Your task to perform on an android device: open app "Microsoft Excel" (install if not already installed) and go to login screen Image 0: 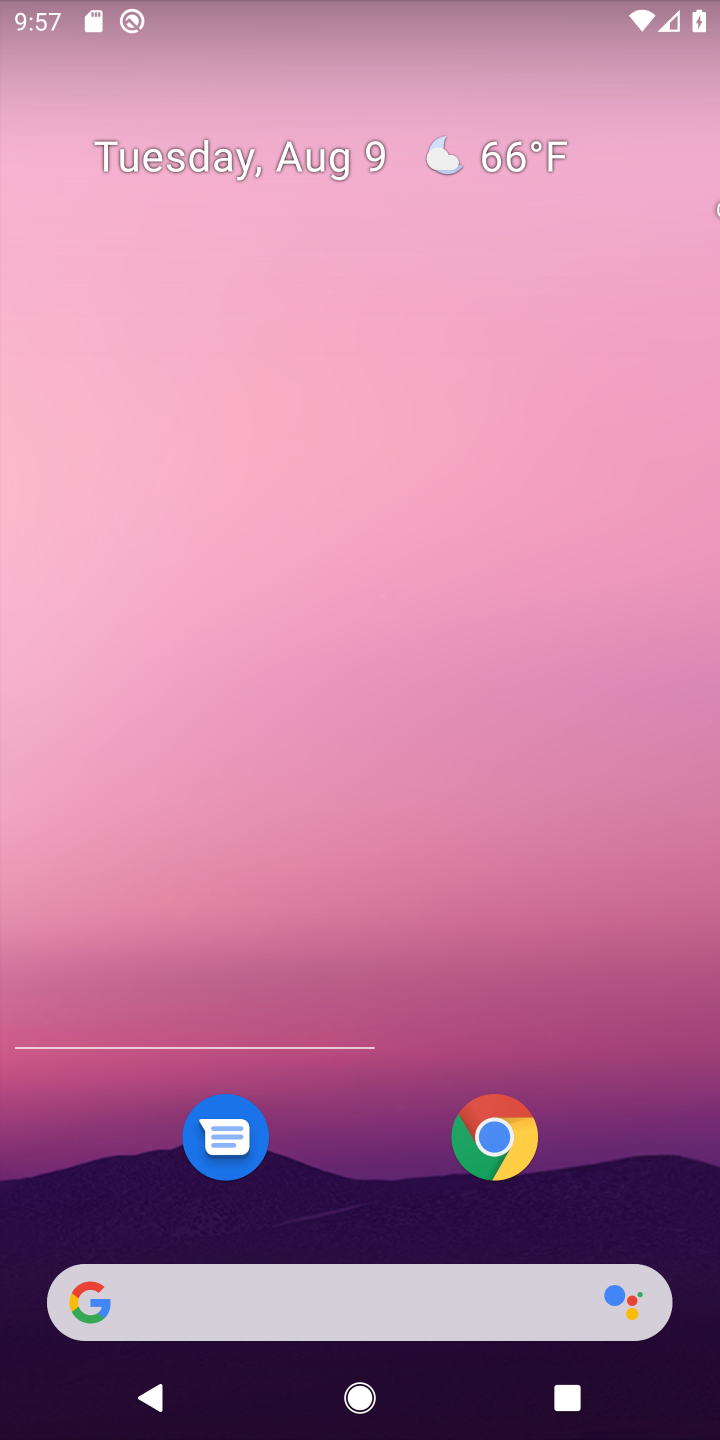
Step 0: press home button
Your task to perform on an android device: open app "Microsoft Excel" (install if not already installed) and go to login screen Image 1: 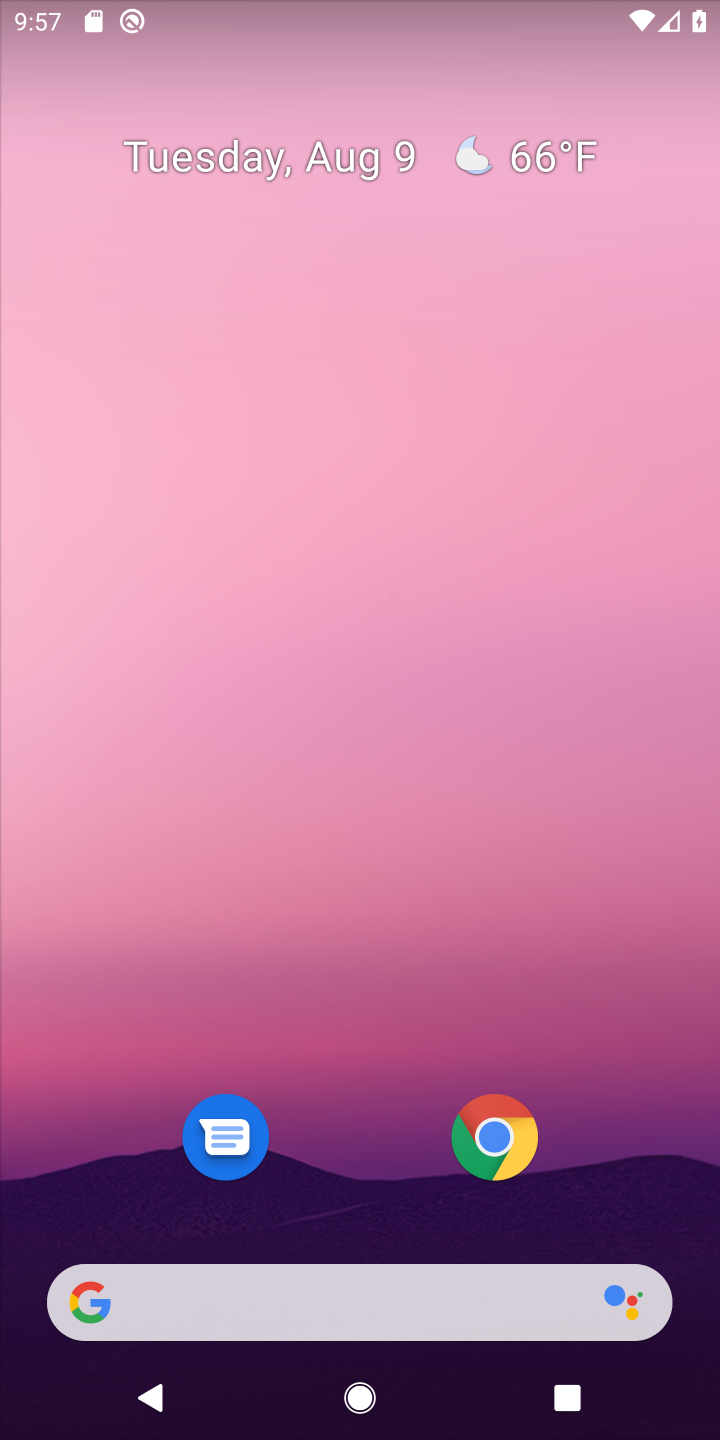
Step 1: drag from (336, 1140) to (371, 356)
Your task to perform on an android device: open app "Microsoft Excel" (install if not already installed) and go to login screen Image 2: 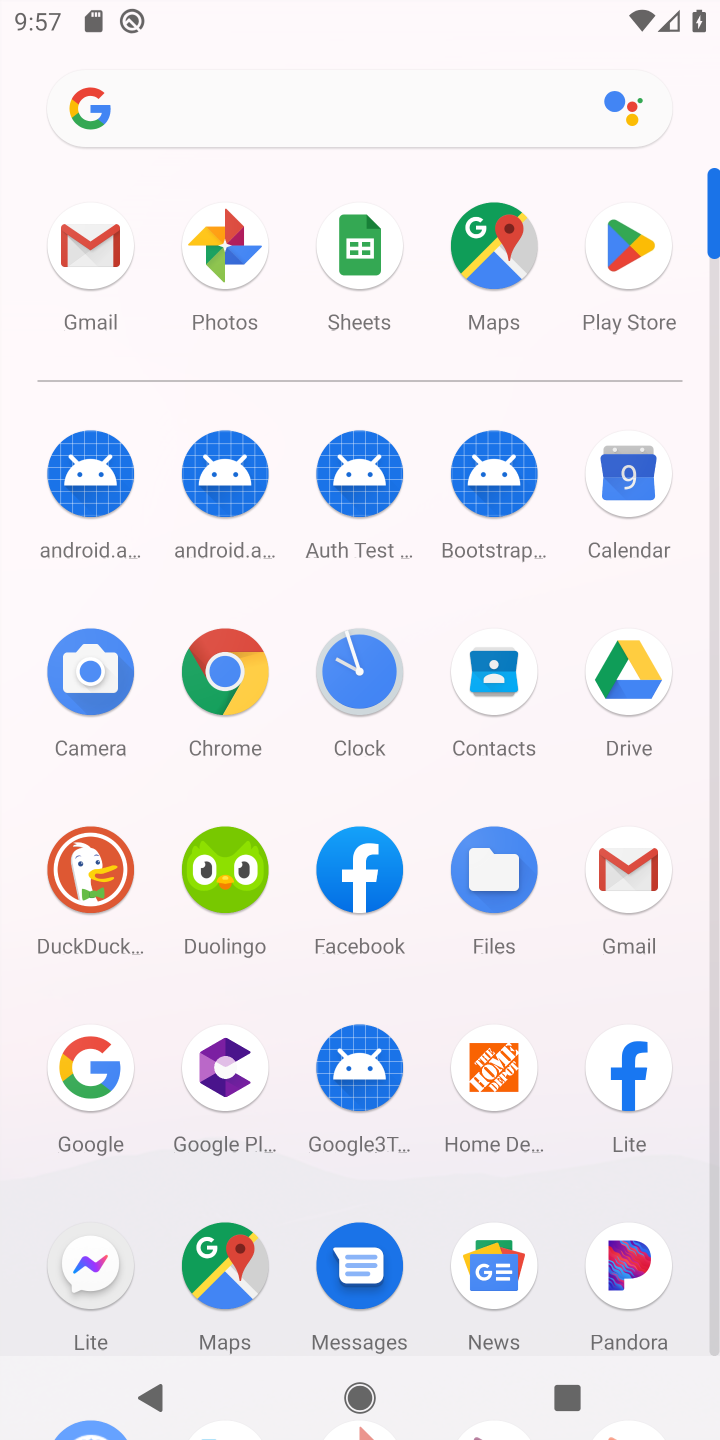
Step 2: click (636, 264)
Your task to perform on an android device: open app "Microsoft Excel" (install if not already installed) and go to login screen Image 3: 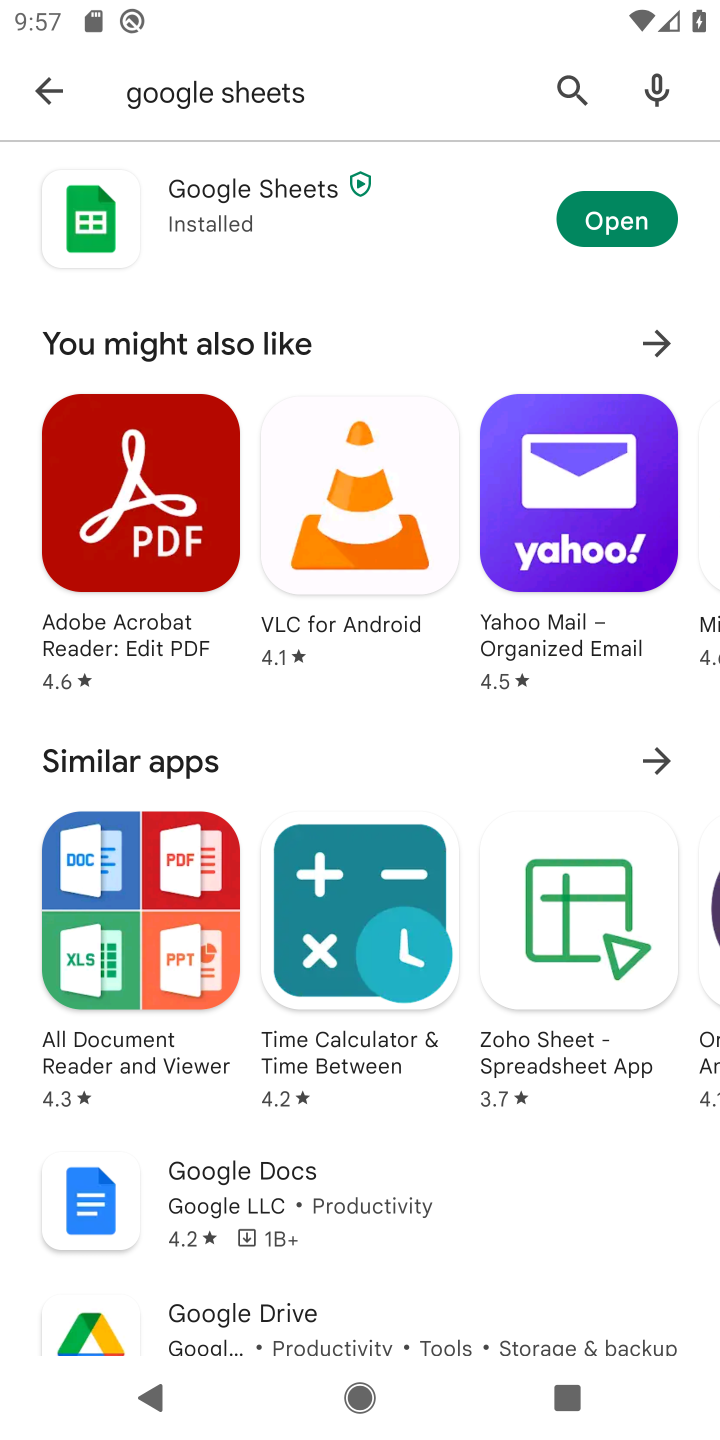
Step 3: click (578, 65)
Your task to perform on an android device: open app "Microsoft Excel" (install if not already installed) and go to login screen Image 4: 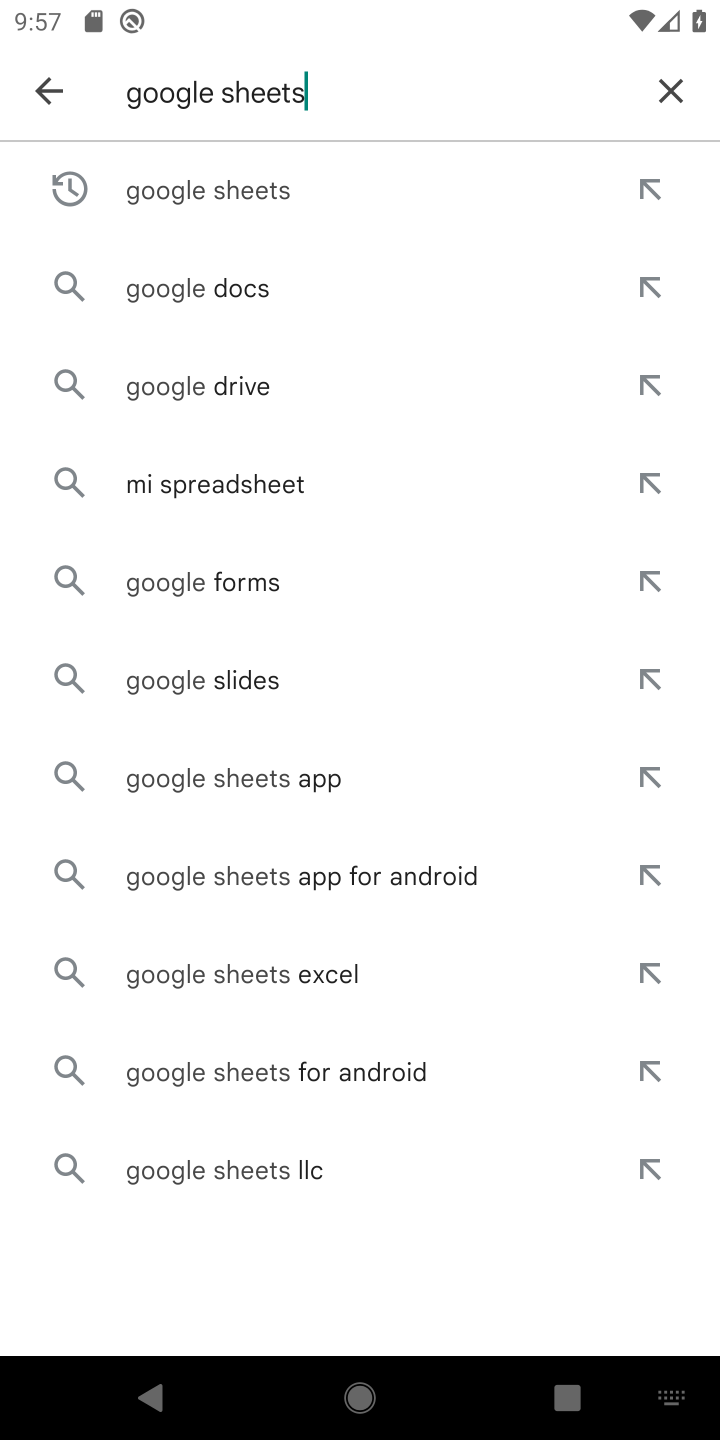
Step 4: click (668, 101)
Your task to perform on an android device: open app "Microsoft Excel" (install if not already installed) and go to login screen Image 5: 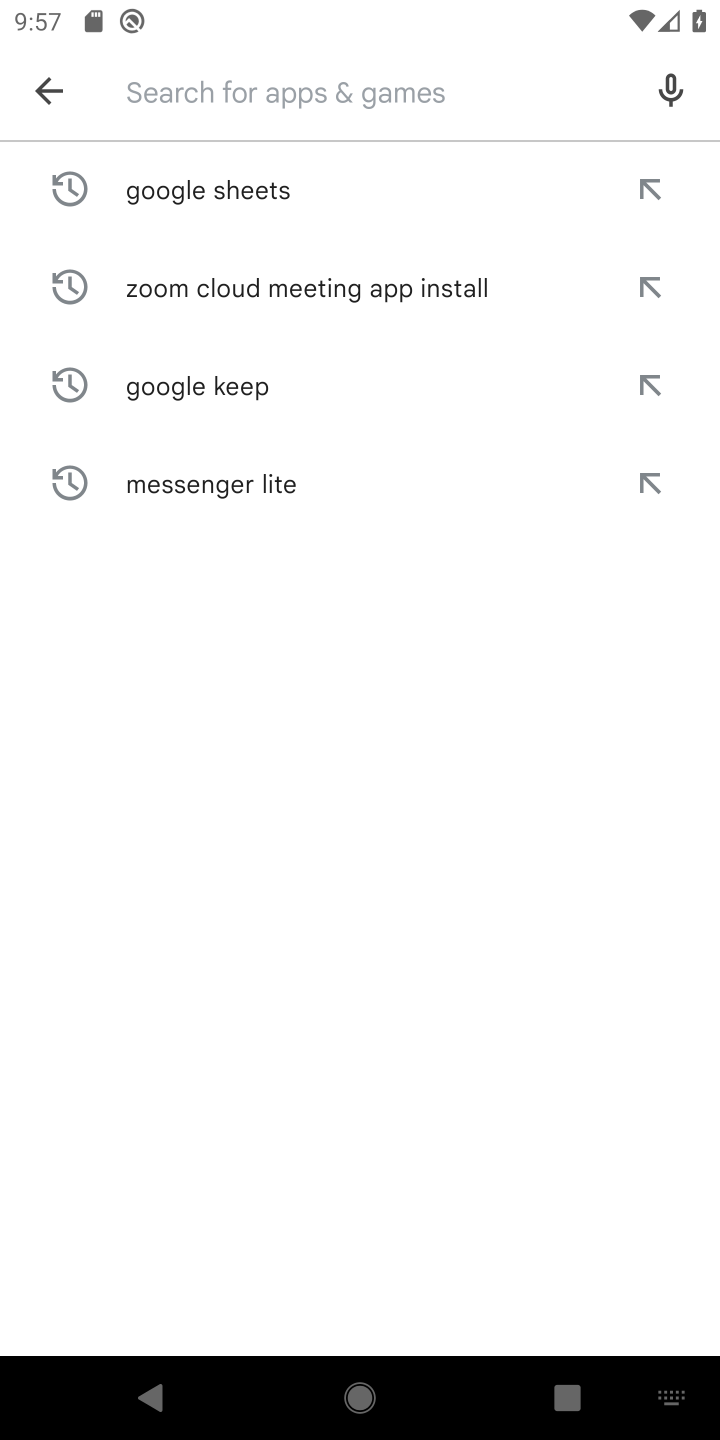
Step 5: type "Microsoft Excel"
Your task to perform on an android device: open app "Microsoft Excel" (install if not already installed) and go to login screen Image 6: 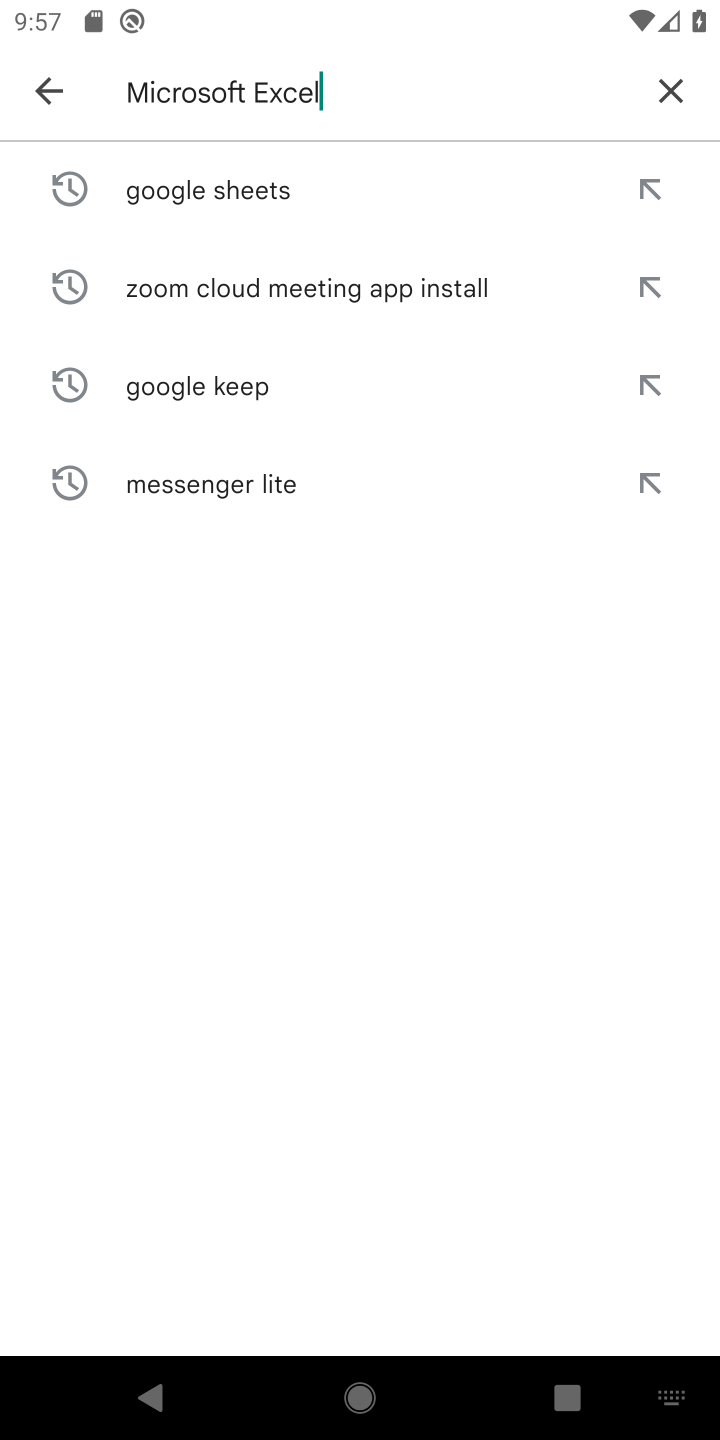
Step 6: type ""
Your task to perform on an android device: open app "Microsoft Excel" (install if not already installed) and go to login screen Image 7: 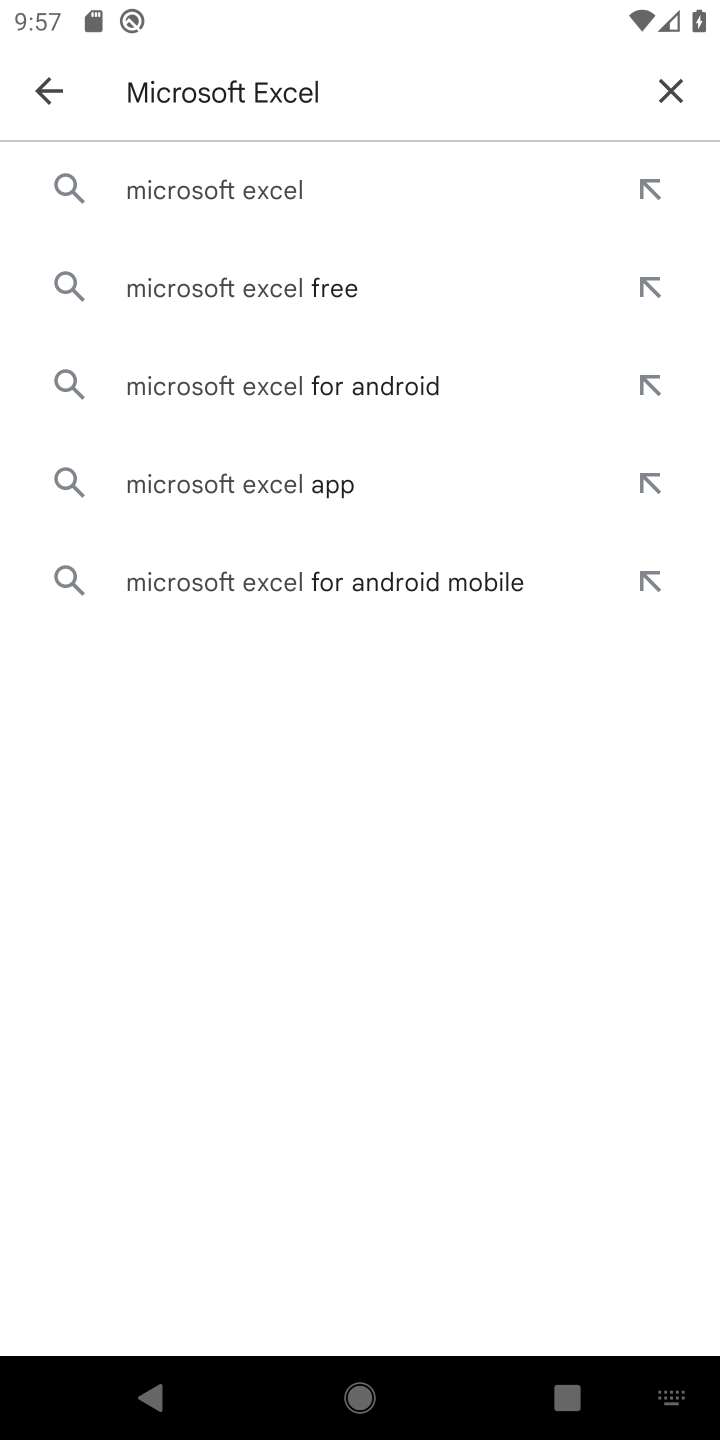
Step 7: click (328, 172)
Your task to perform on an android device: open app "Microsoft Excel" (install if not already installed) and go to login screen Image 8: 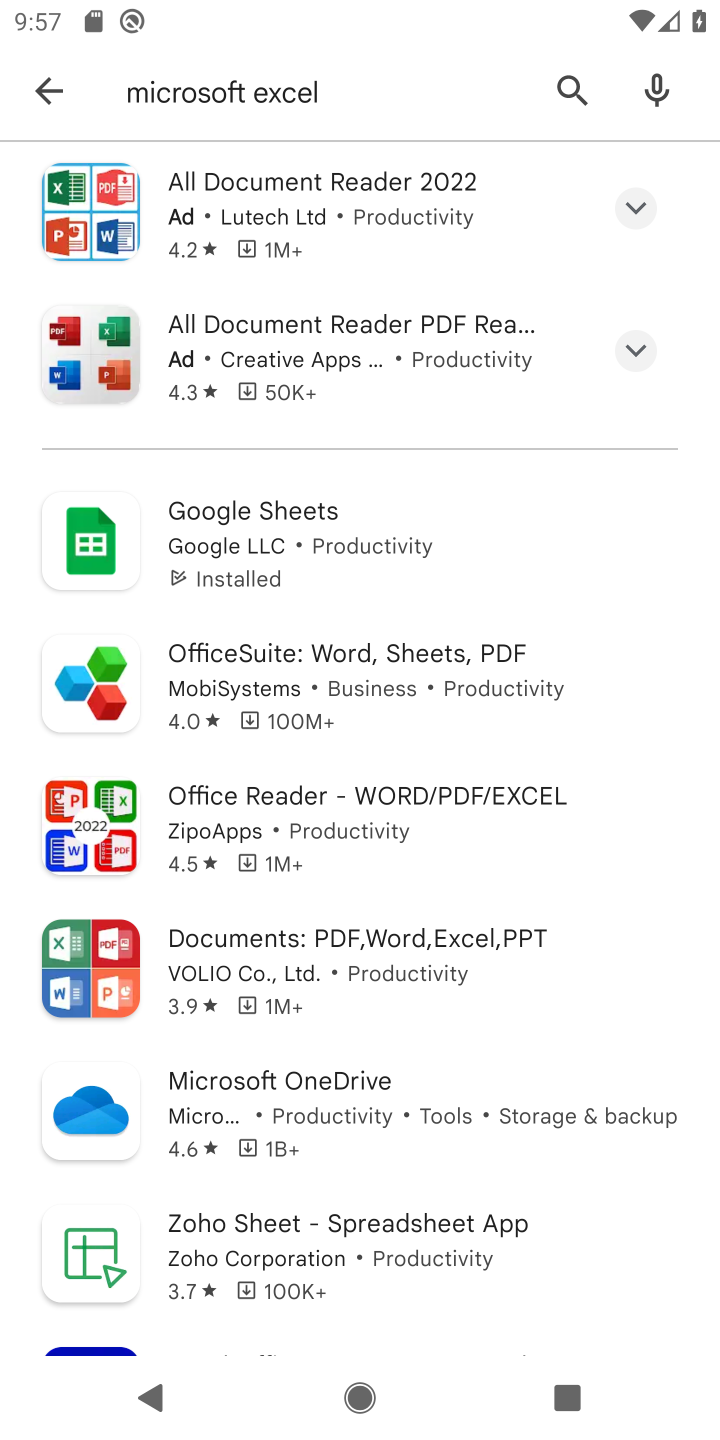
Step 8: task complete